Your task to perform on an android device: Open settings Image 0: 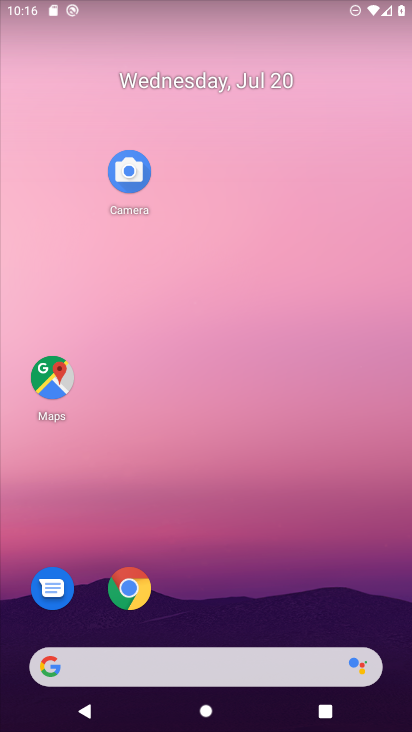
Step 0: drag from (302, 623) to (315, 386)
Your task to perform on an android device: Open settings Image 1: 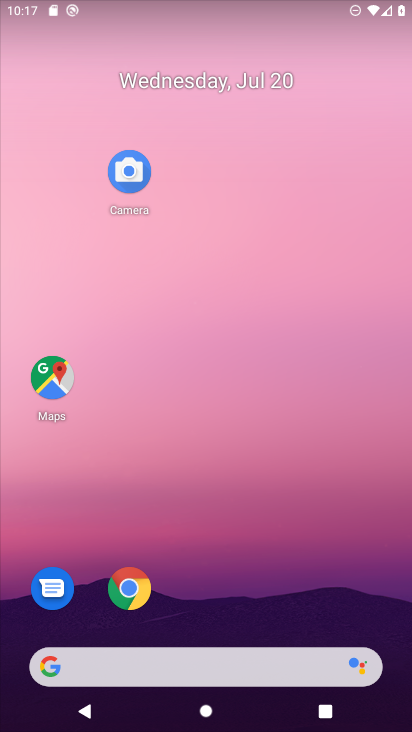
Step 1: drag from (239, 694) to (255, 597)
Your task to perform on an android device: Open settings Image 2: 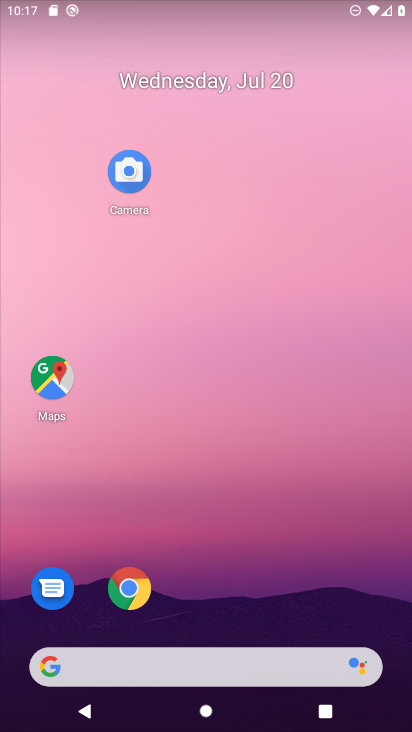
Step 2: drag from (277, 620) to (345, 284)
Your task to perform on an android device: Open settings Image 3: 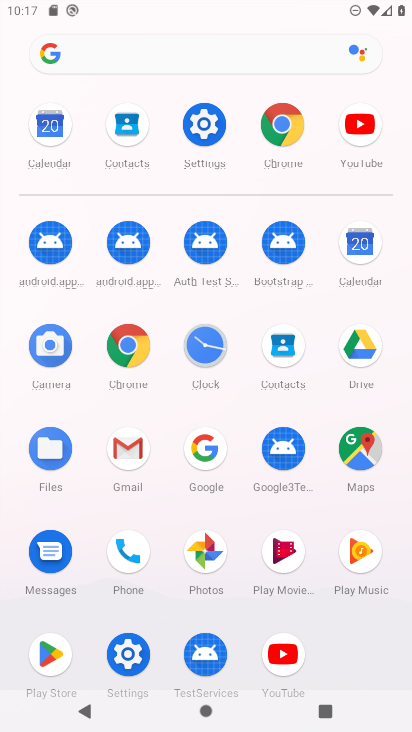
Step 3: click (211, 98)
Your task to perform on an android device: Open settings Image 4: 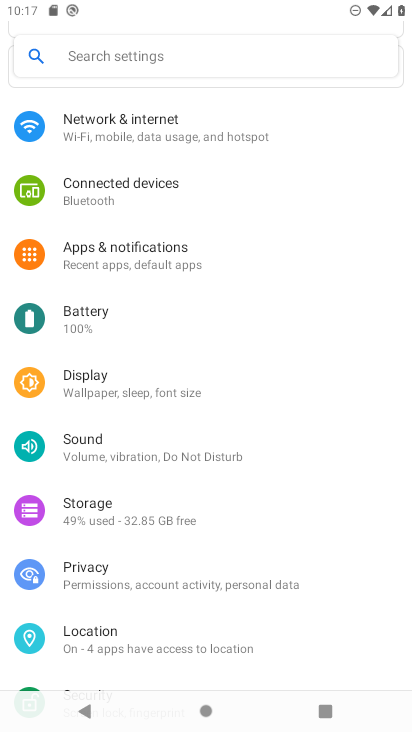
Step 4: task complete